Your task to perform on an android device: Go to eBay Image 0: 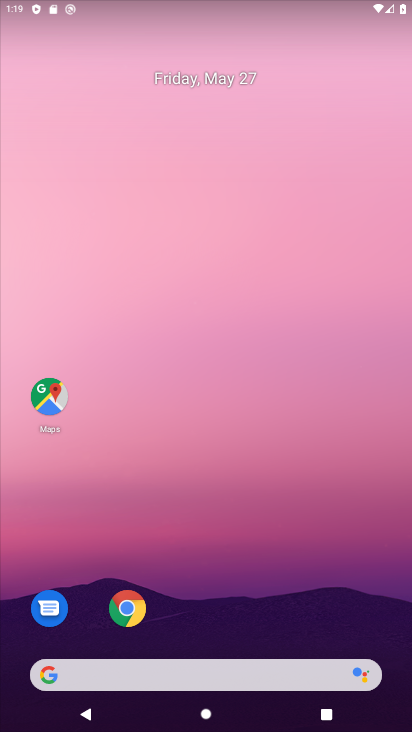
Step 0: click (126, 607)
Your task to perform on an android device: Go to eBay Image 1: 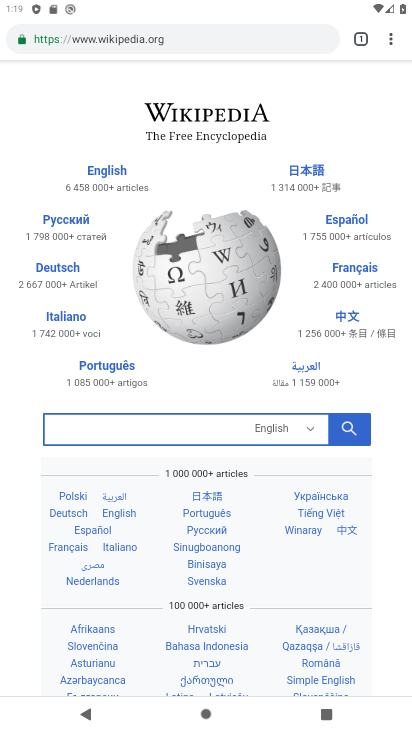
Step 1: click (200, 32)
Your task to perform on an android device: Go to eBay Image 2: 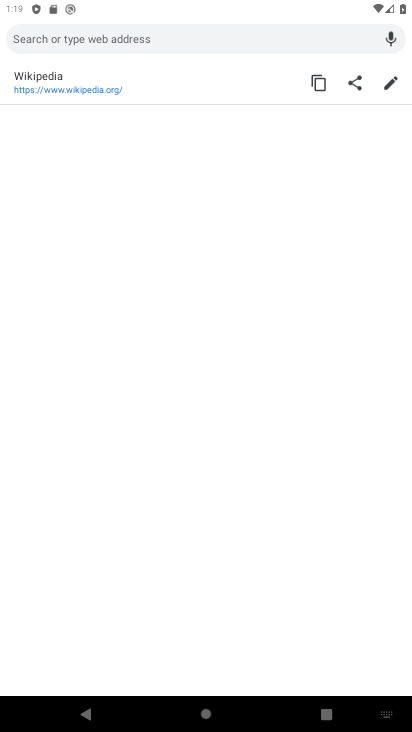
Step 2: type "ebay"
Your task to perform on an android device: Go to eBay Image 3: 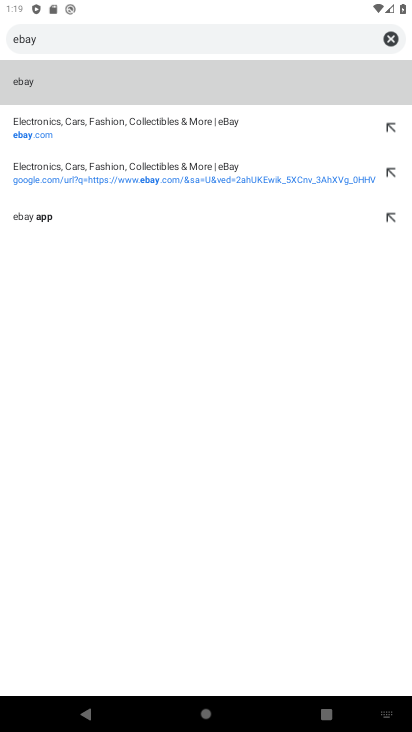
Step 3: click (58, 87)
Your task to perform on an android device: Go to eBay Image 4: 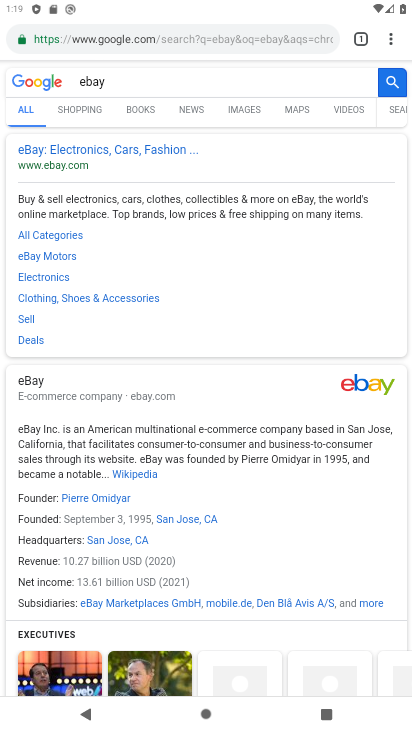
Step 4: click (52, 153)
Your task to perform on an android device: Go to eBay Image 5: 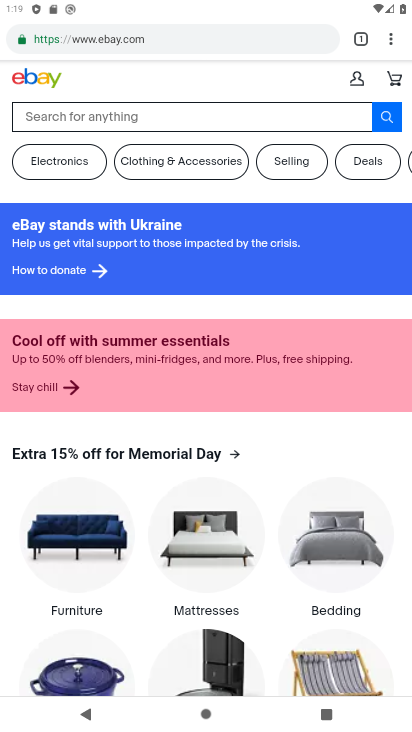
Step 5: task complete